Your task to perform on an android device: set default search engine in the chrome app Image 0: 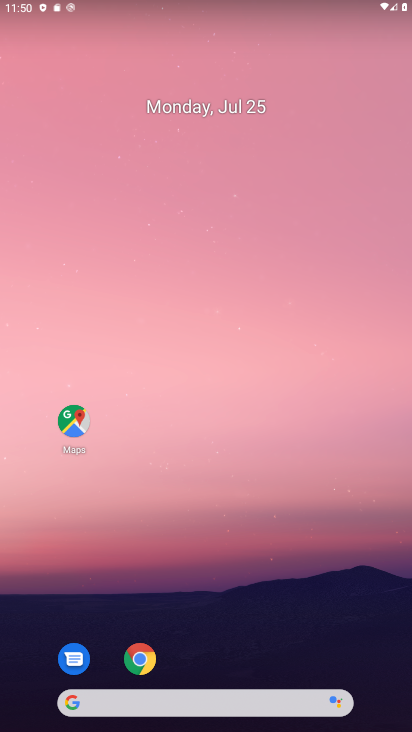
Step 0: press home button
Your task to perform on an android device: set default search engine in the chrome app Image 1: 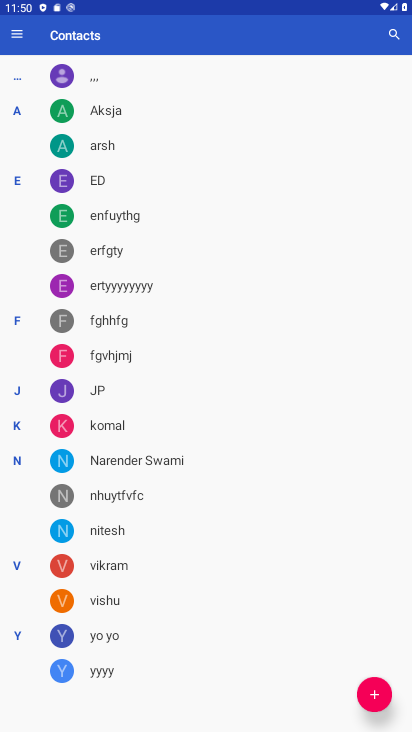
Step 1: click (273, 54)
Your task to perform on an android device: set default search engine in the chrome app Image 2: 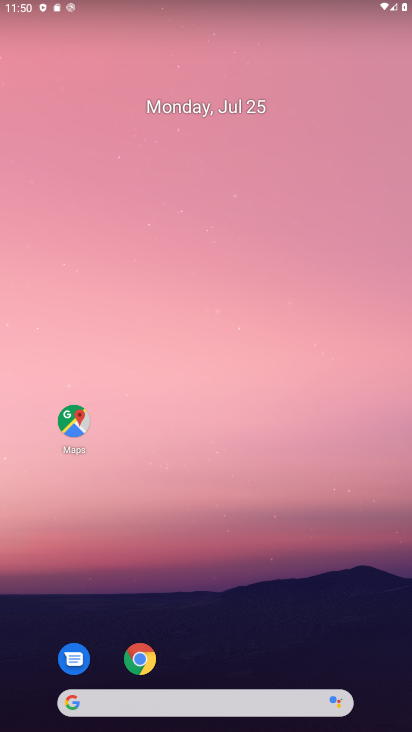
Step 2: click (130, 650)
Your task to perform on an android device: set default search engine in the chrome app Image 3: 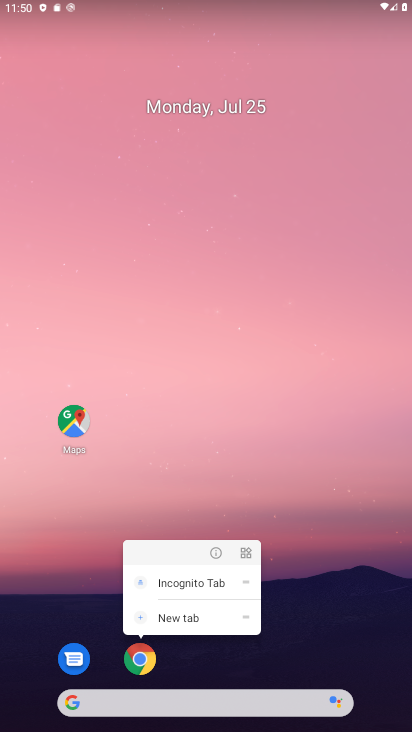
Step 3: click (130, 650)
Your task to perform on an android device: set default search engine in the chrome app Image 4: 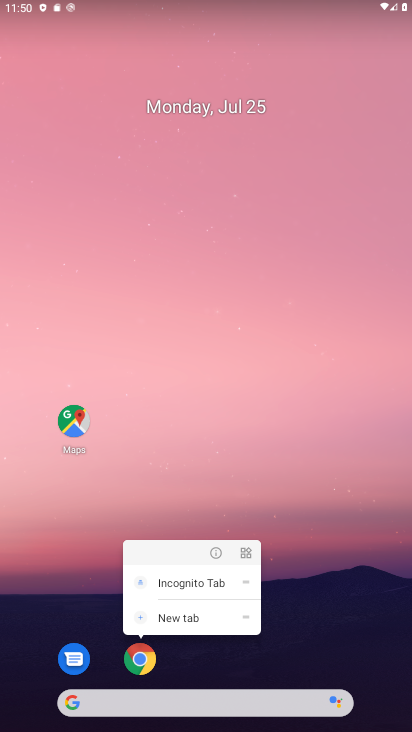
Step 4: click (137, 668)
Your task to perform on an android device: set default search engine in the chrome app Image 5: 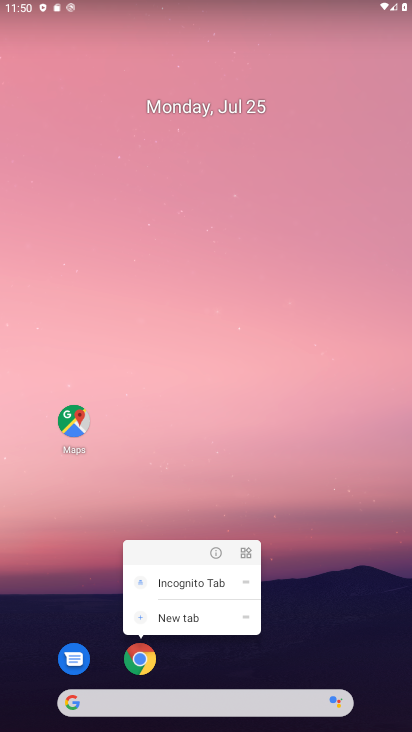
Step 5: click (145, 665)
Your task to perform on an android device: set default search engine in the chrome app Image 6: 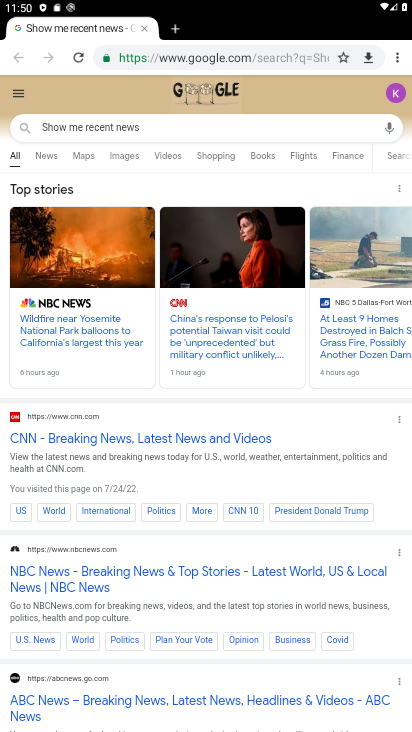
Step 6: drag from (405, 59) to (307, 395)
Your task to perform on an android device: set default search engine in the chrome app Image 7: 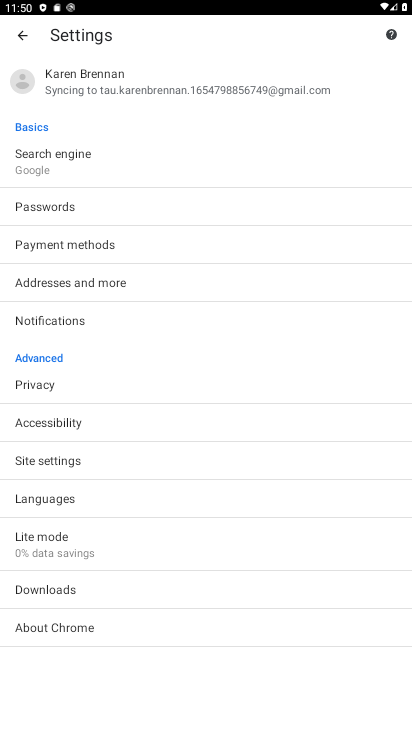
Step 7: click (20, 165)
Your task to perform on an android device: set default search engine in the chrome app Image 8: 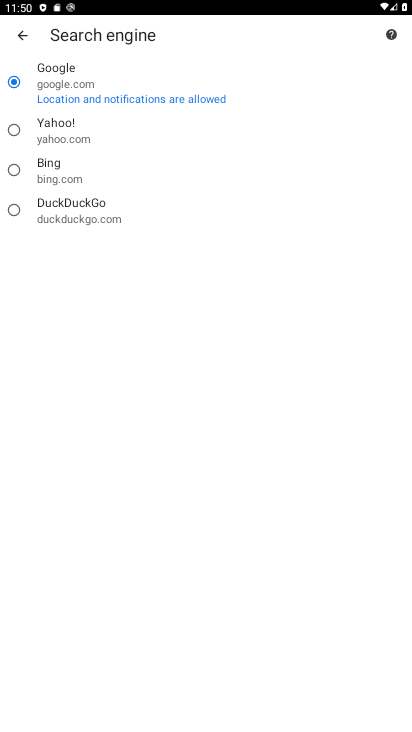
Step 8: click (51, 64)
Your task to perform on an android device: set default search engine in the chrome app Image 9: 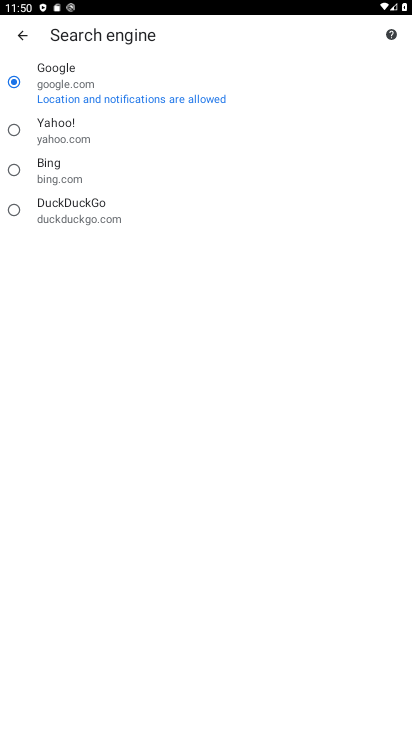
Step 9: click (318, 110)
Your task to perform on an android device: set default search engine in the chrome app Image 10: 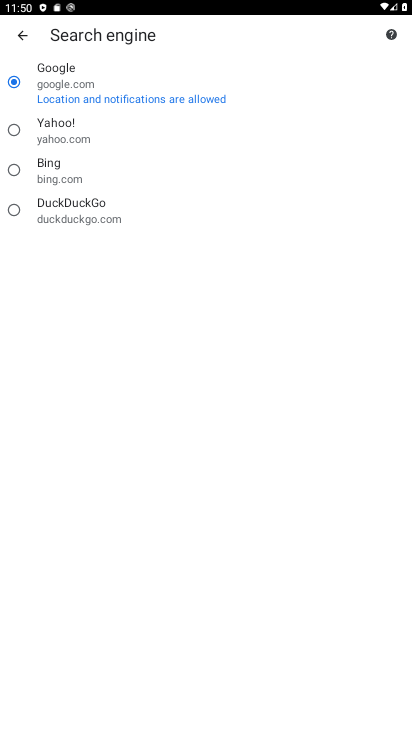
Step 10: task complete